Your task to perform on an android device: Go to settings Image 0: 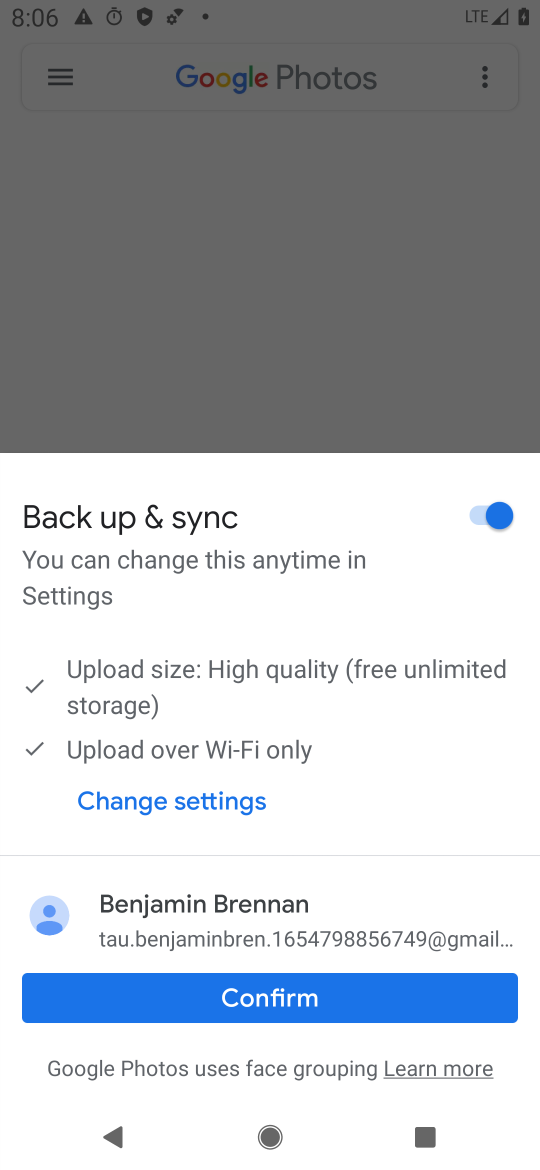
Step 0: drag from (336, 888) to (419, 540)
Your task to perform on an android device: Go to settings Image 1: 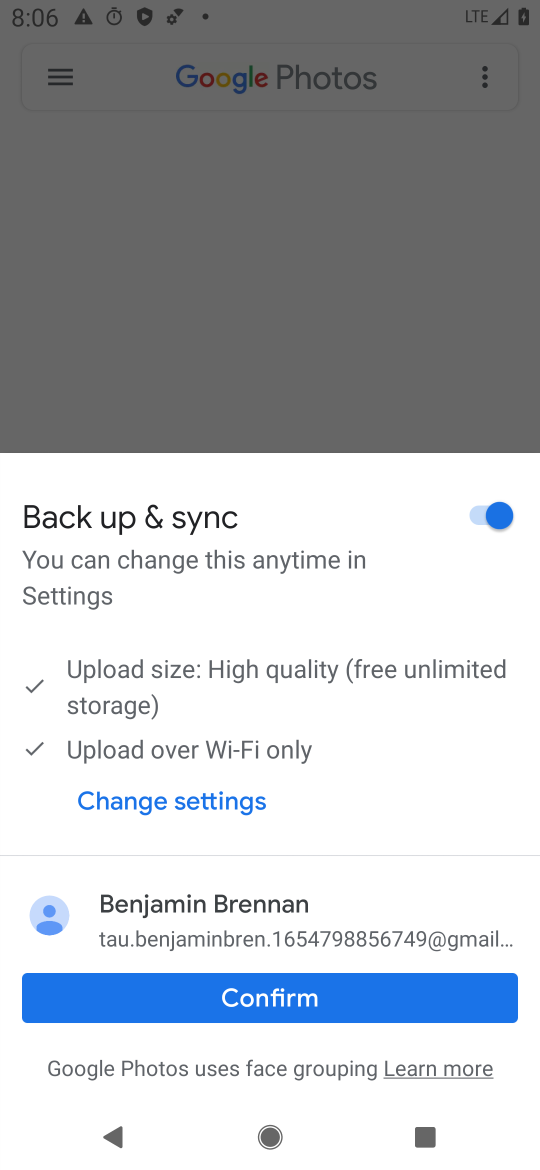
Step 1: press back button
Your task to perform on an android device: Go to settings Image 2: 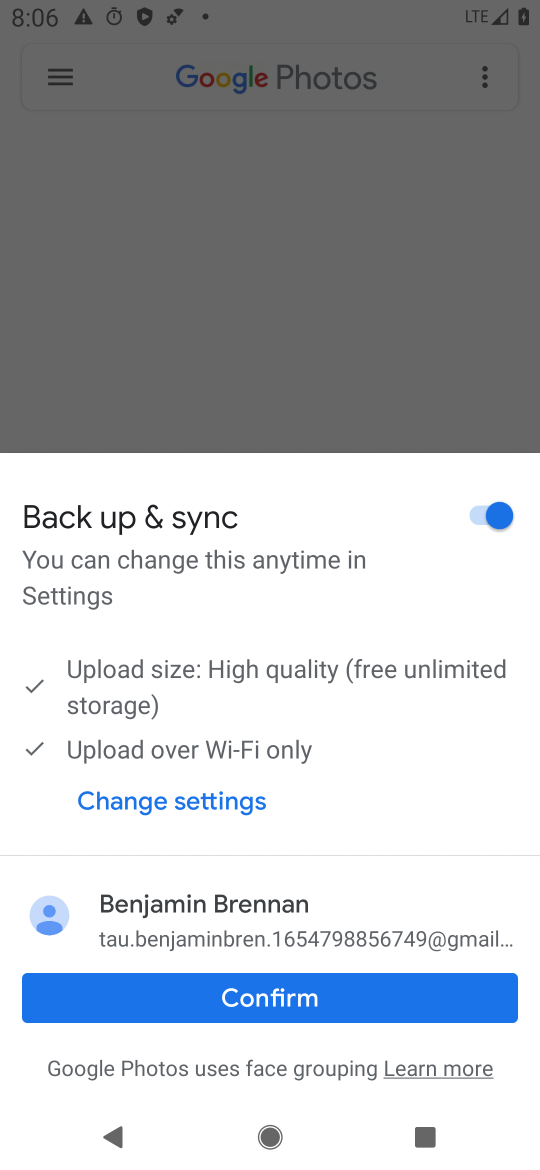
Step 2: press home button
Your task to perform on an android device: Go to settings Image 3: 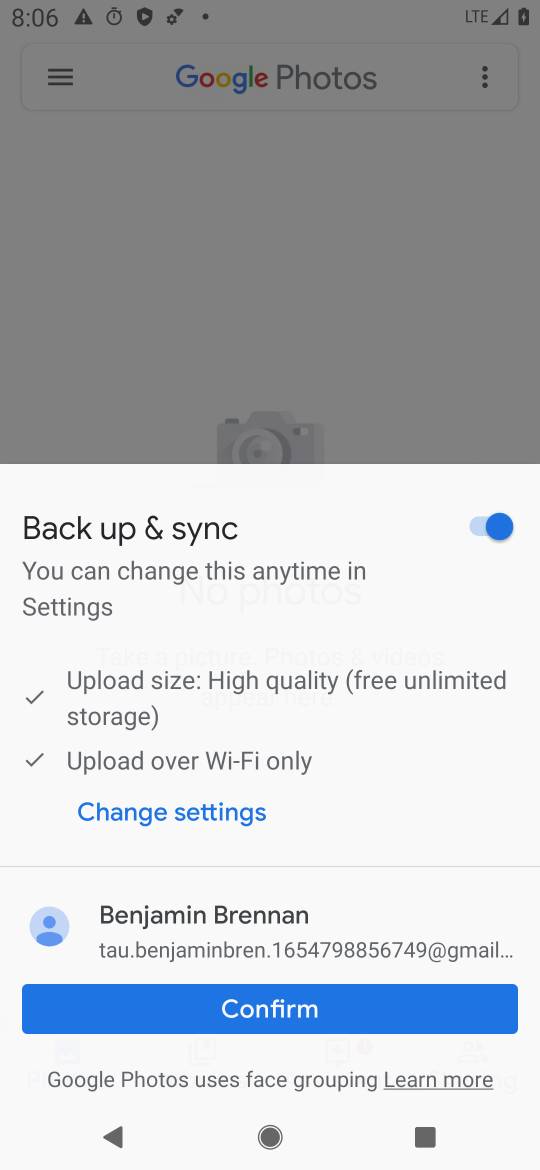
Step 3: click (405, 550)
Your task to perform on an android device: Go to settings Image 4: 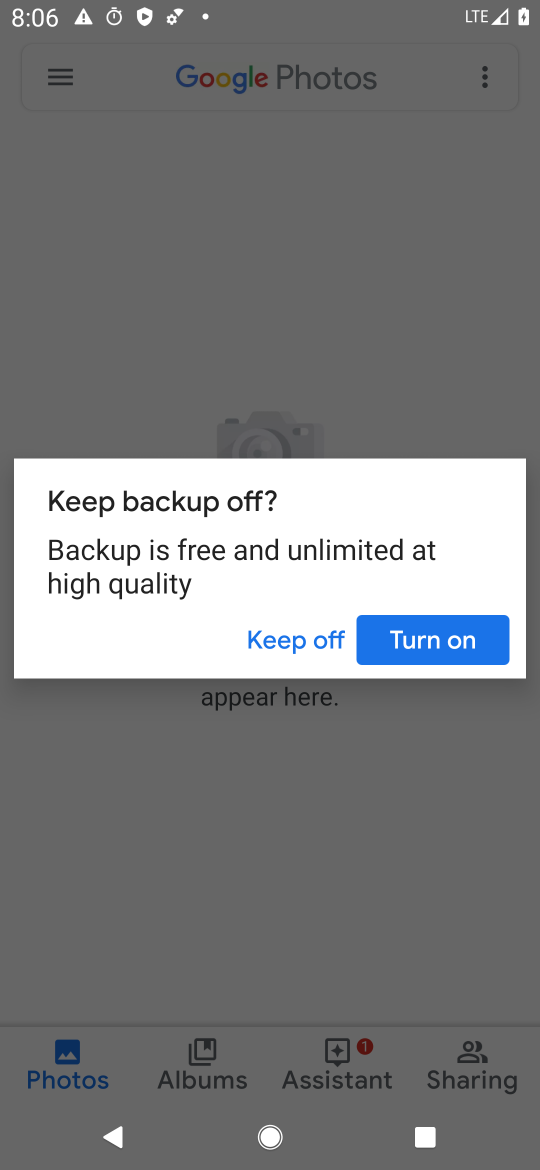
Step 4: drag from (165, 889) to (346, 23)
Your task to perform on an android device: Go to settings Image 5: 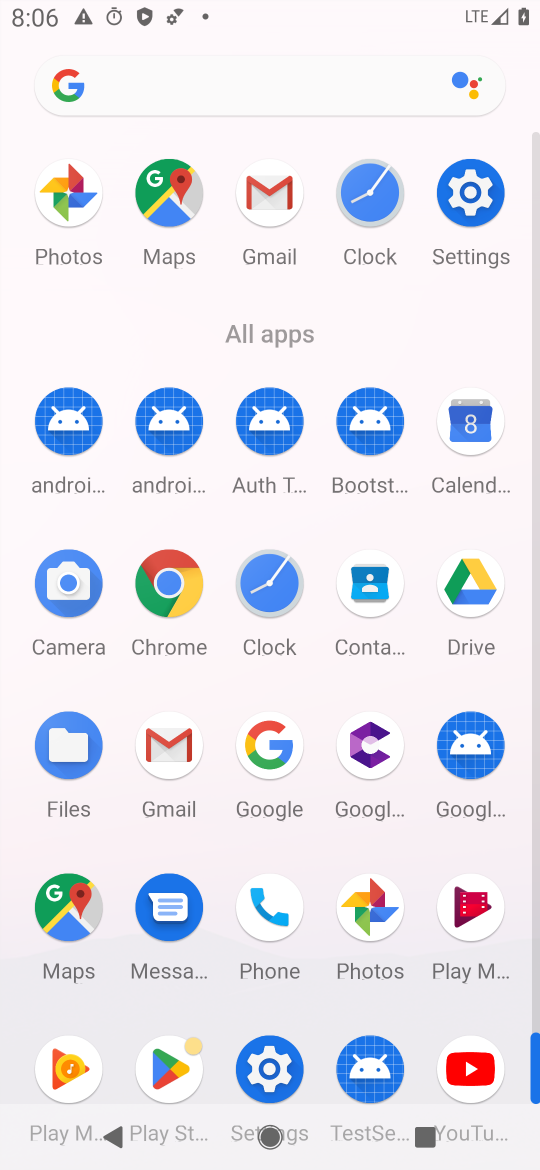
Step 5: click (470, 182)
Your task to perform on an android device: Go to settings Image 6: 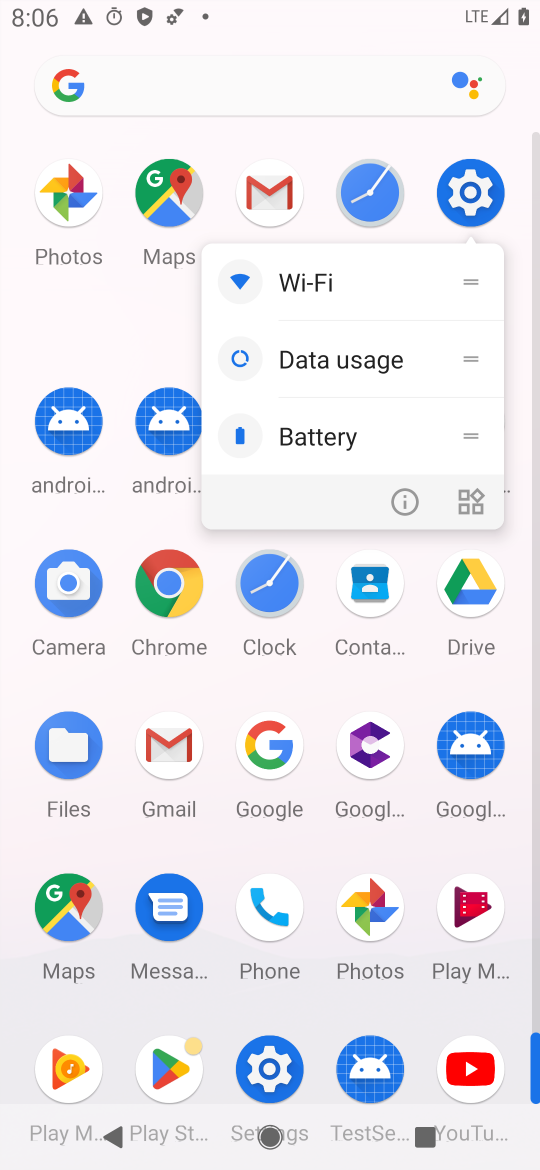
Step 6: click (388, 515)
Your task to perform on an android device: Go to settings Image 7: 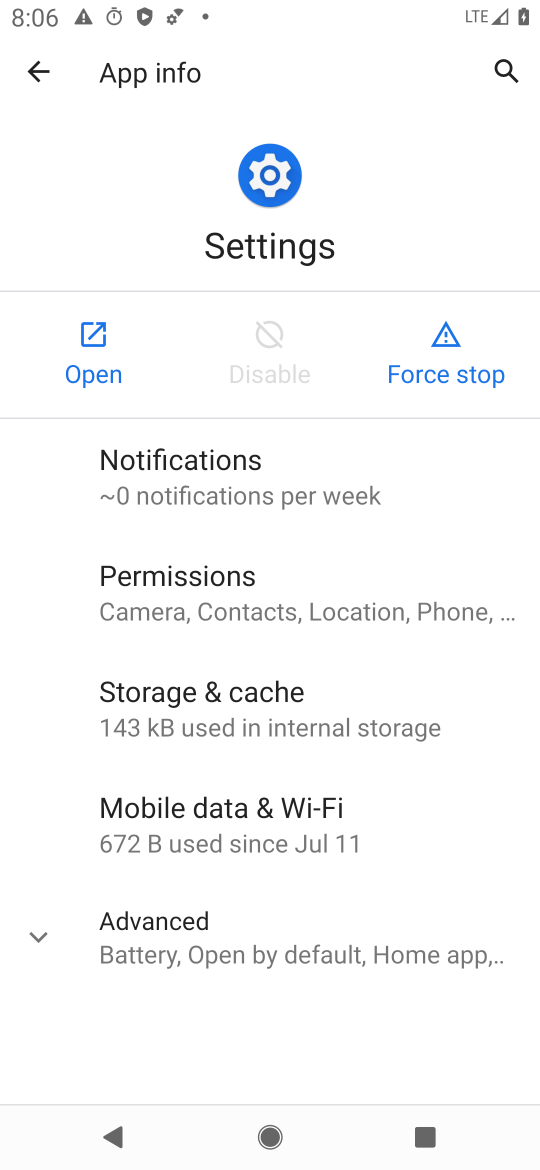
Step 7: click (88, 339)
Your task to perform on an android device: Go to settings Image 8: 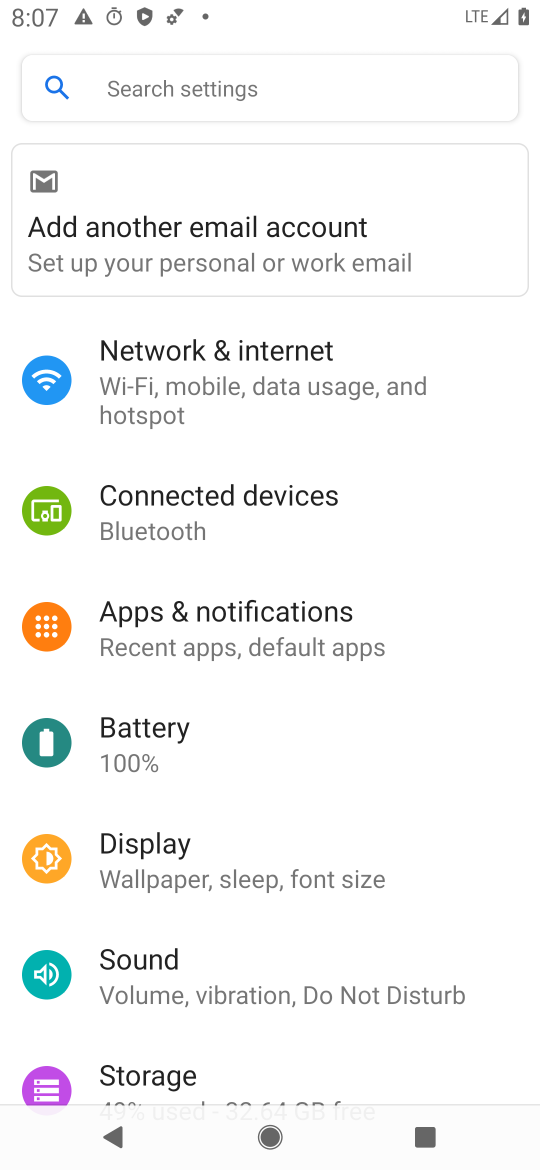
Step 8: task complete